Your task to perform on an android device: Open Google Chrome and click the shortcut for Amazon.com Image 0: 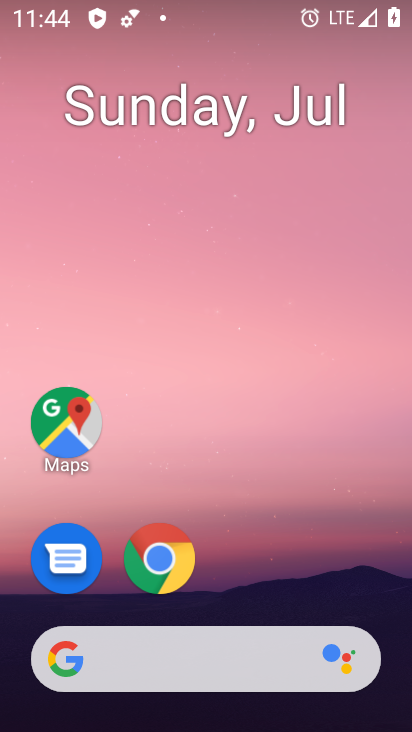
Step 0: click (152, 559)
Your task to perform on an android device: Open Google Chrome and click the shortcut for Amazon.com Image 1: 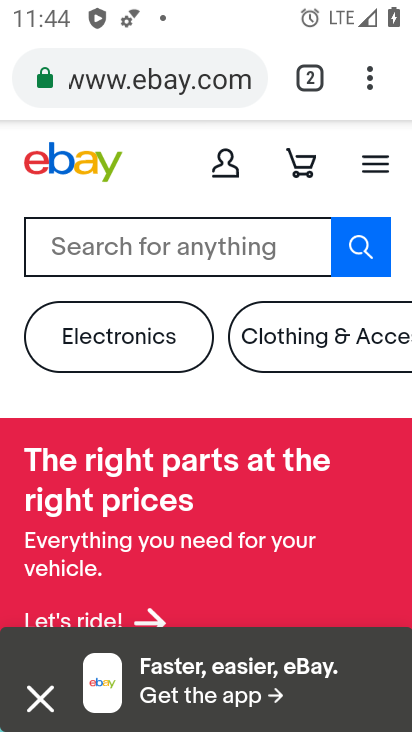
Step 1: click (299, 78)
Your task to perform on an android device: Open Google Chrome and click the shortcut for Amazon.com Image 2: 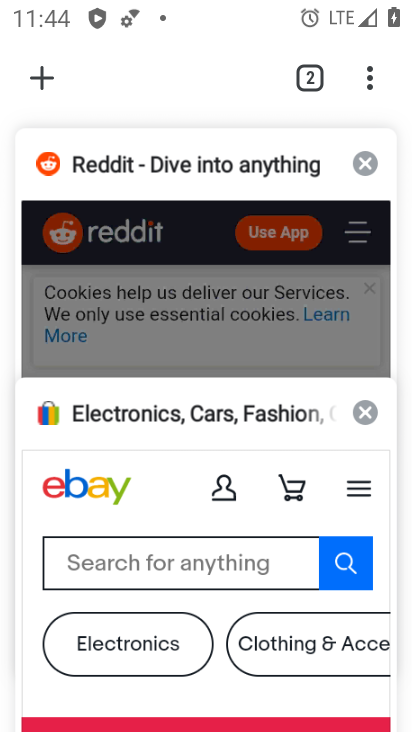
Step 2: click (43, 73)
Your task to perform on an android device: Open Google Chrome and click the shortcut for Amazon.com Image 3: 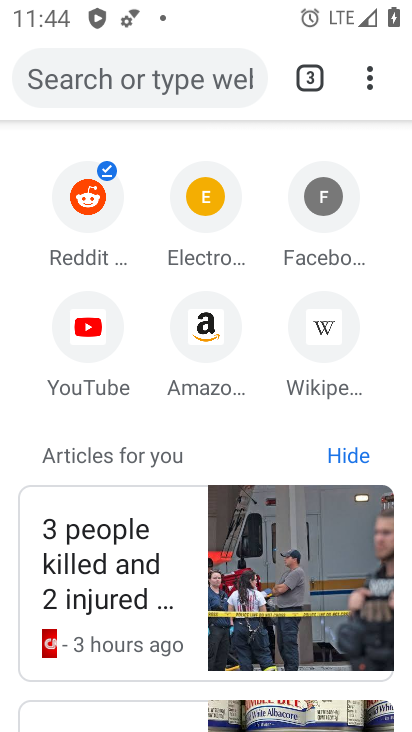
Step 3: click (212, 322)
Your task to perform on an android device: Open Google Chrome and click the shortcut for Amazon.com Image 4: 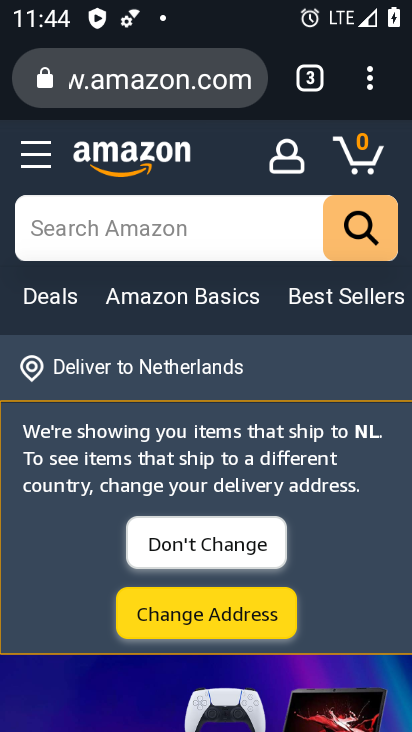
Step 4: task complete